Your task to perform on an android device: star an email in the gmail app Image 0: 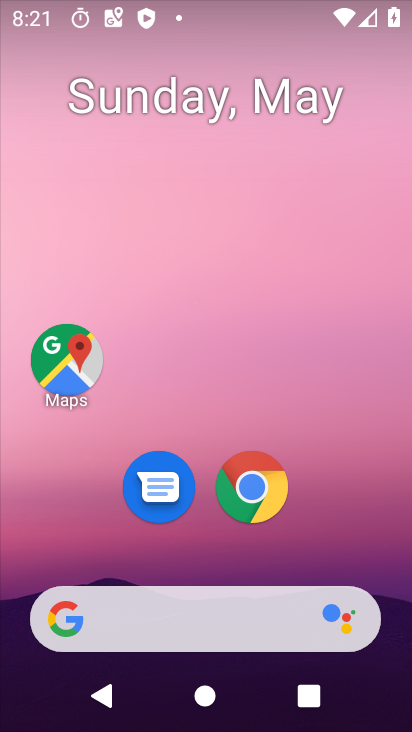
Step 0: drag from (43, 451) to (168, 152)
Your task to perform on an android device: star an email in the gmail app Image 1: 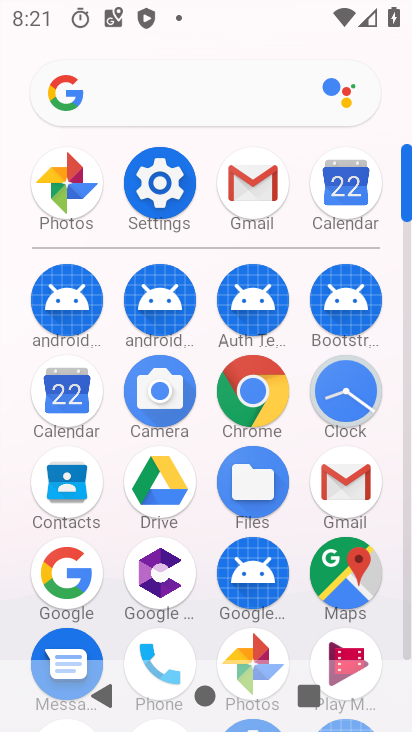
Step 1: click (239, 198)
Your task to perform on an android device: star an email in the gmail app Image 2: 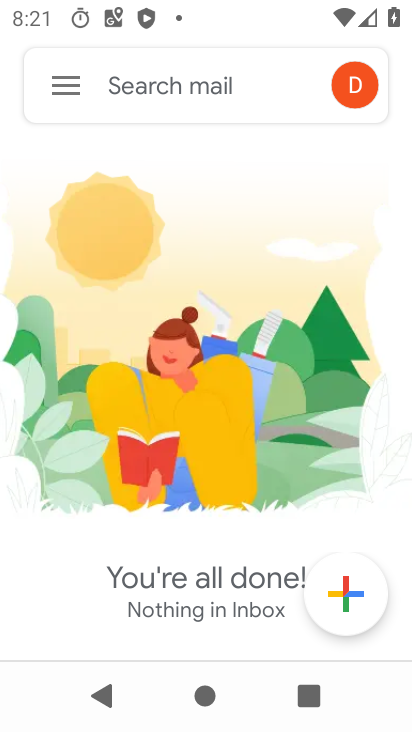
Step 2: click (64, 73)
Your task to perform on an android device: star an email in the gmail app Image 3: 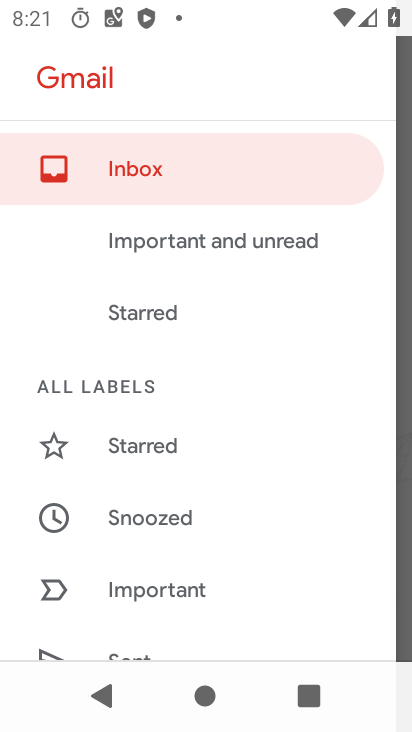
Step 3: click (97, 197)
Your task to perform on an android device: star an email in the gmail app Image 4: 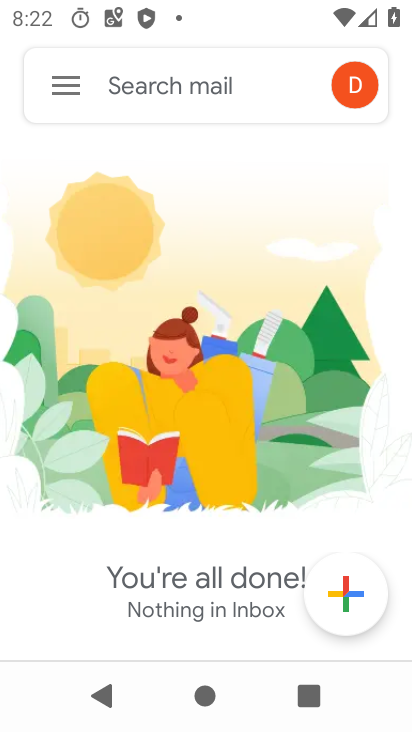
Step 4: drag from (388, 428) to (354, 680)
Your task to perform on an android device: star an email in the gmail app Image 5: 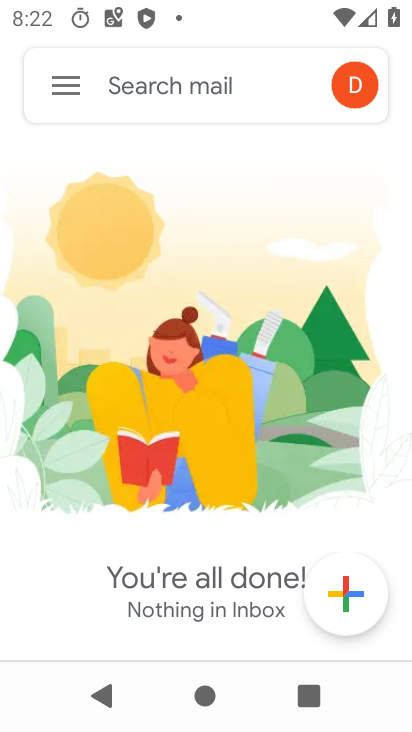
Step 5: press home button
Your task to perform on an android device: star an email in the gmail app Image 6: 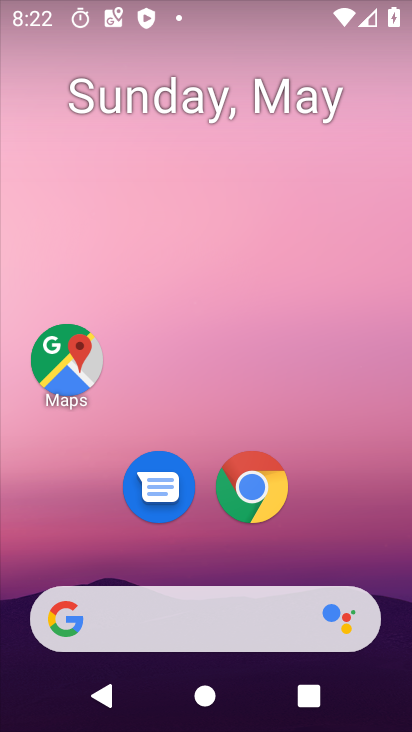
Step 6: drag from (11, 664) to (183, 303)
Your task to perform on an android device: star an email in the gmail app Image 7: 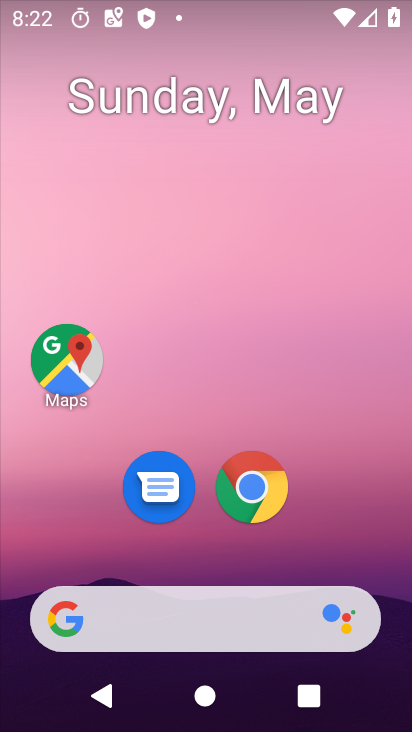
Step 7: drag from (106, 416) to (245, 112)
Your task to perform on an android device: star an email in the gmail app Image 8: 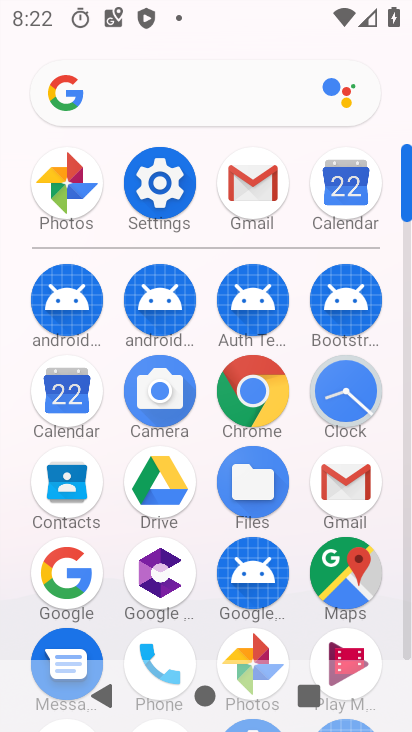
Step 8: click (346, 485)
Your task to perform on an android device: star an email in the gmail app Image 9: 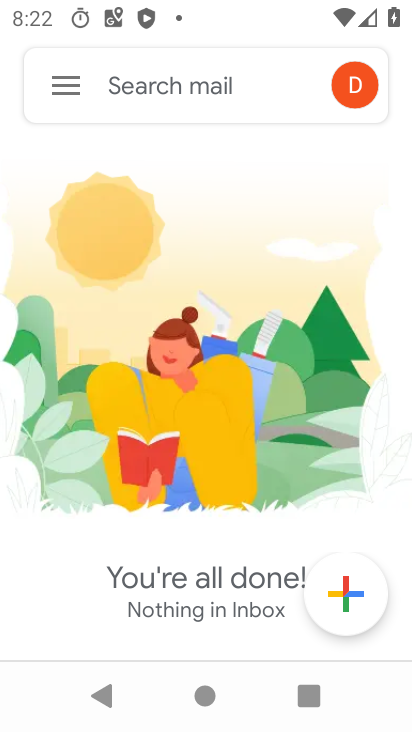
Step 9: click (53, 88)
Your task to perform on an android device: star an email in the gmail app Image 10: 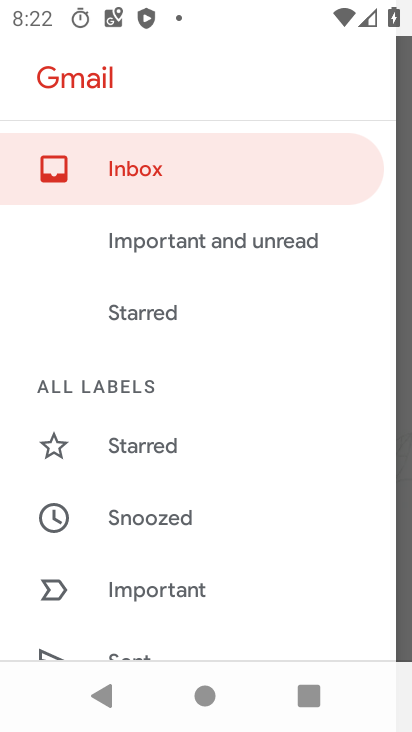
Step 10: drag from (60, 589) to (173, 219)
Your task to perform on an android device: star an email in the gmail app Image 11: 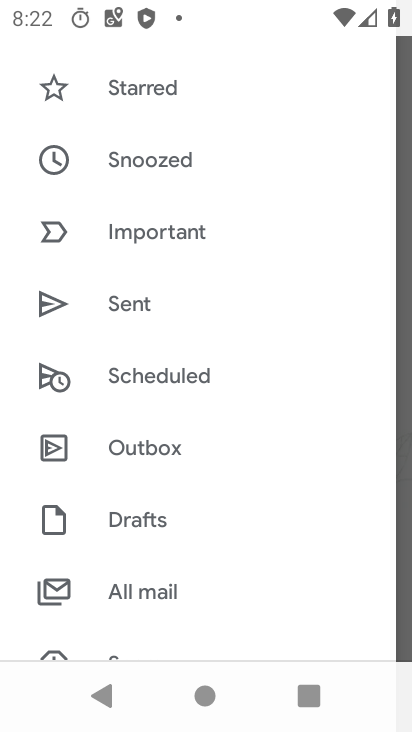
Step 11: click (106, 593)
Your task to perform on an android device: star an email in the gmail app Image 12: 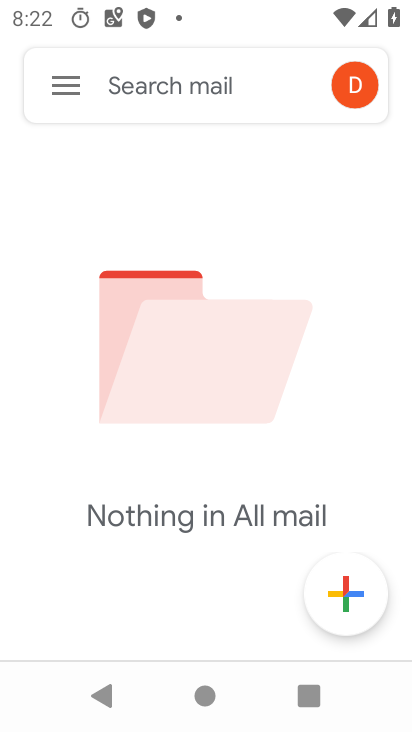
Step 12: task complete